Your task to perform on an android device: turn on priority inbox in the gmail app Image 0: 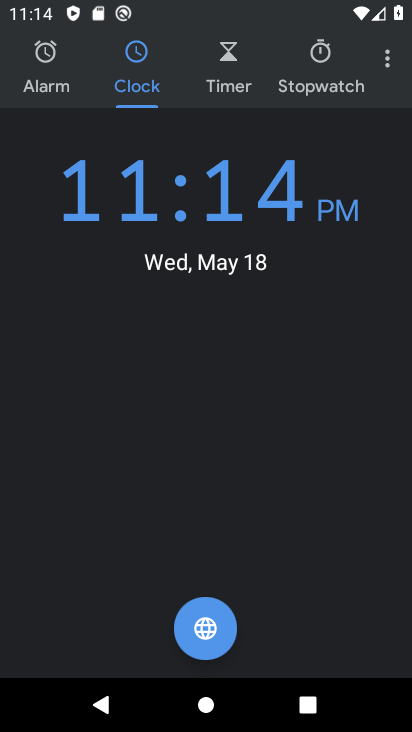
Step 0: press home button
Your task to perform on an android device: turn on priority inbox in the gmail app Image 1: 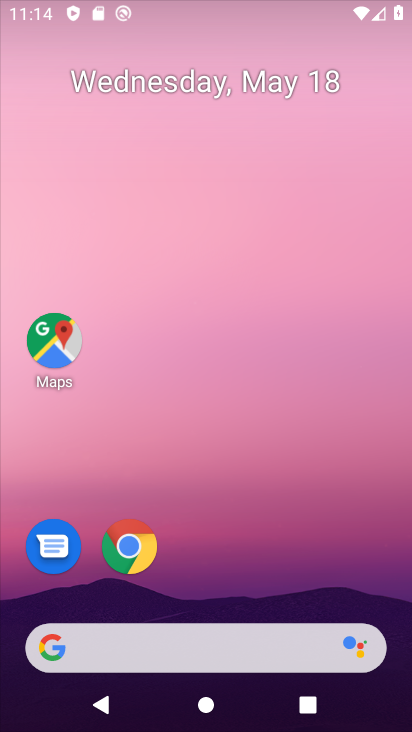
Step 1: drag from (277, 472) to (277, 42)
Your task to perform on an android device: turn on priority inbox in the gmail app Image 2: 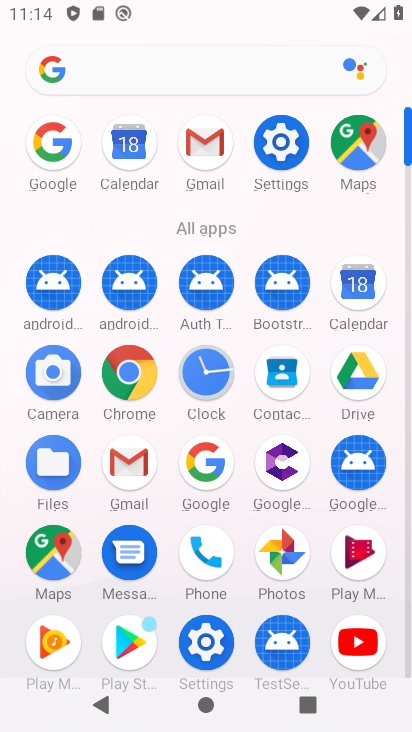
Step 2: click (201, 128)
Your task to perform on an android device: turn on priority inbox in the gmail app Image 3: 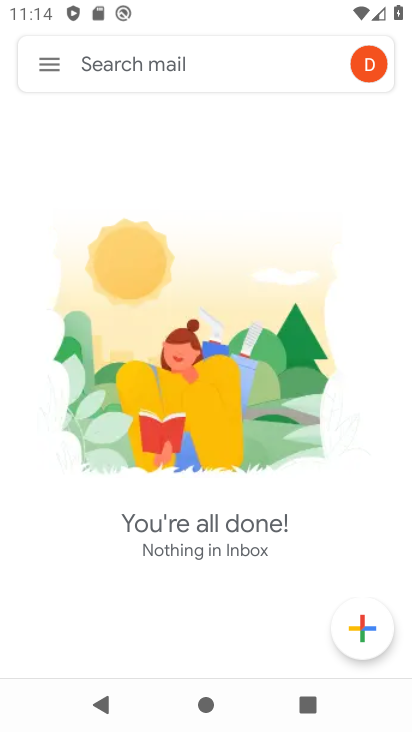
Step 3: click (43, 64)
Your task to perform on an android device: turn on priority inbox in the gmail app Image 4: 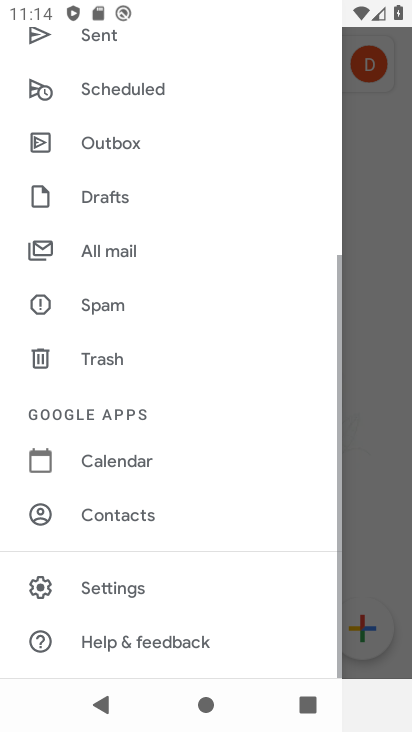
Step 4: click (162, 579)
Your task to perform on an android device: turn on priority inbox in the gmail app Image 5: 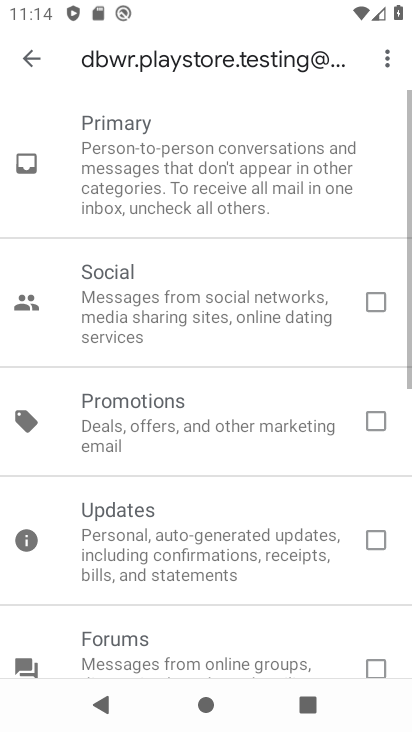
Step 5: drag from (178, 555) to (220, 677)
Your task to perform on an android device: turn on priority inbox in the gmail app Image 6: 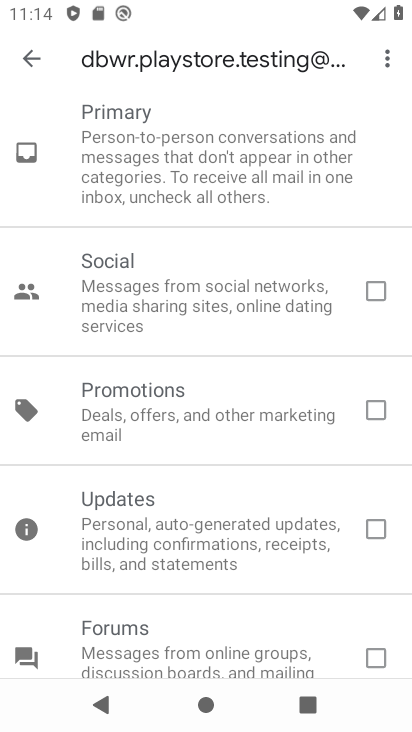
Step 6: press back button
Your task to perform on an android device: turn on priority inbox in the gmail app Image 7: 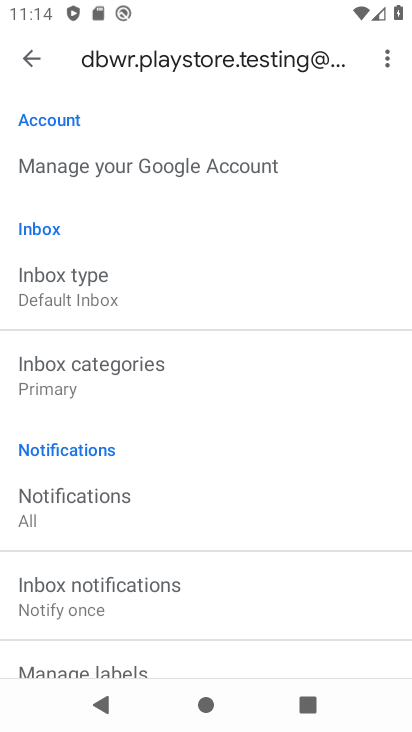
Step 7: click (97, 292)
Your task to perform on an android device: turn on priority inbox in the gmail app Image 8: 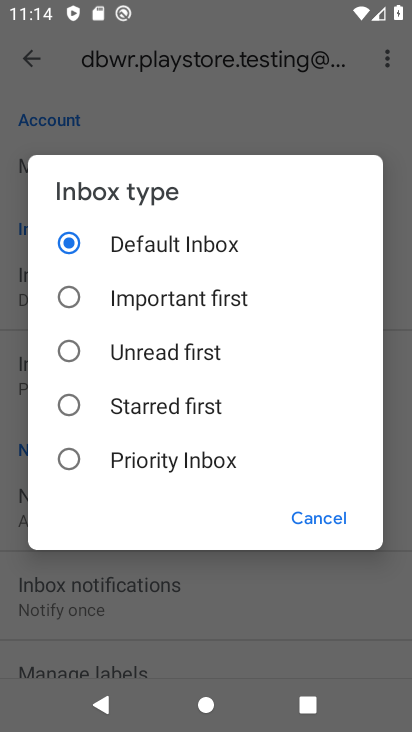
Step 8: click (76, 457)
Your task to perform on an android device: turn on priority inbox in the gmail app Image 9: 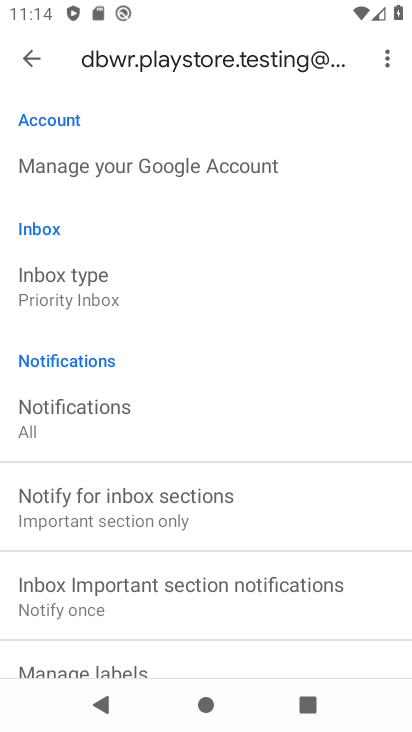
Step 9: task complete